Your task to perform on an android device: What is the news today? Image 0: 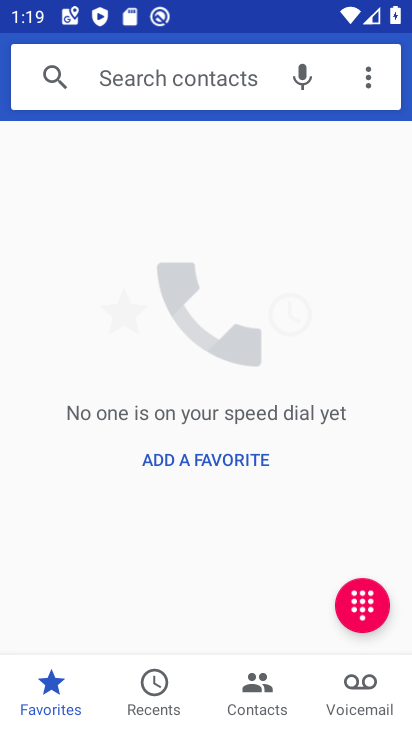
Step 0: press home button
Your task to perform on an android device: What is the news today? Image 1: 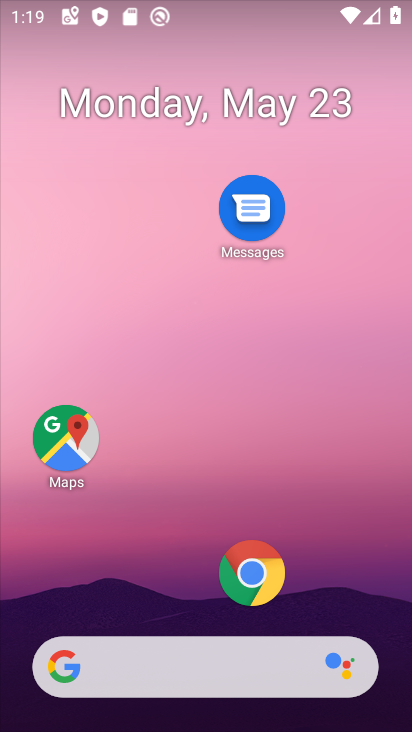
Step 1: drag from (148, 580) to (92, 113)
Your task to perform on an android device: What is the news today? Image 2: 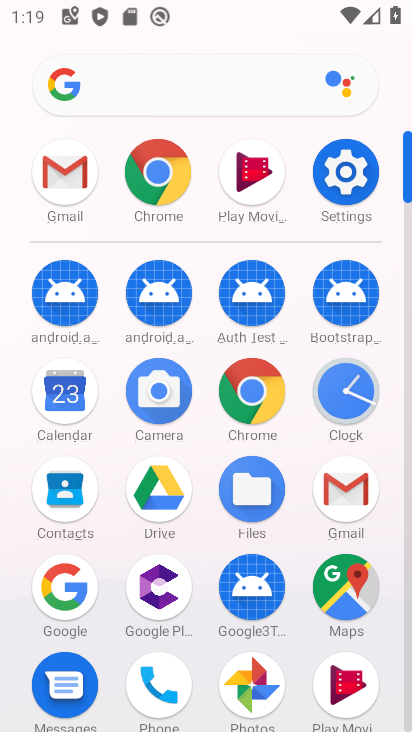
Step 2: click (172, 168)
Your task to perform on an android device: What is the news today? Image 3: 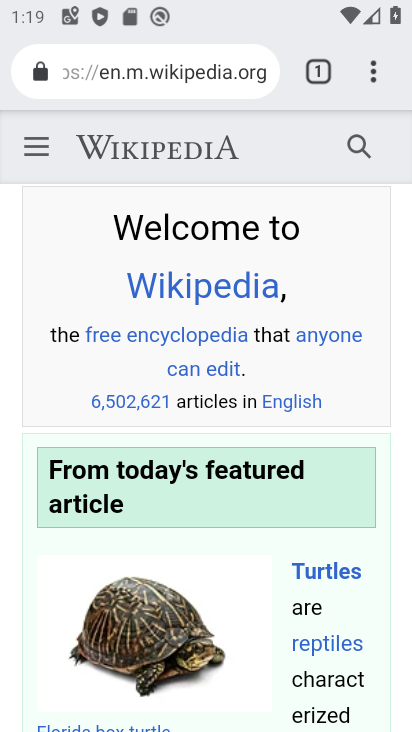
Step 3: click (245, 75)
Your task to perform on an android device: What is the news today? Image 4: 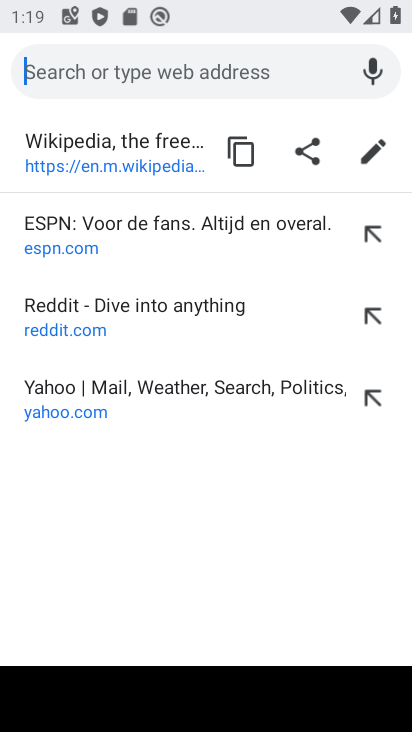
Step 4: type "what is the news today?"
Your task to perform on an android device: What is the news today? Image 5: 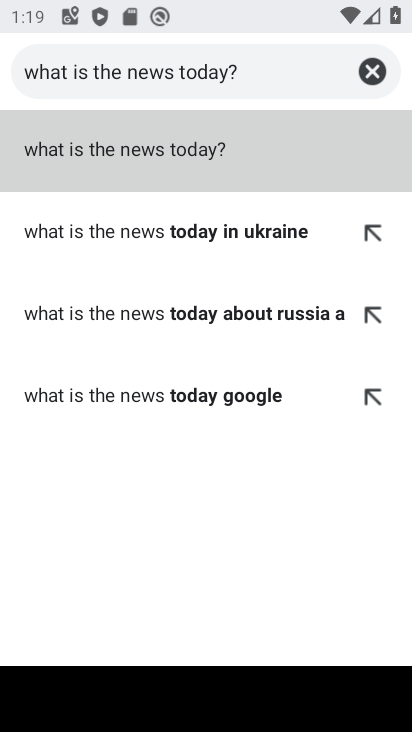
Step 5: click (218, 158)
Your task to perform on an android device: What is the news today? Image 6: 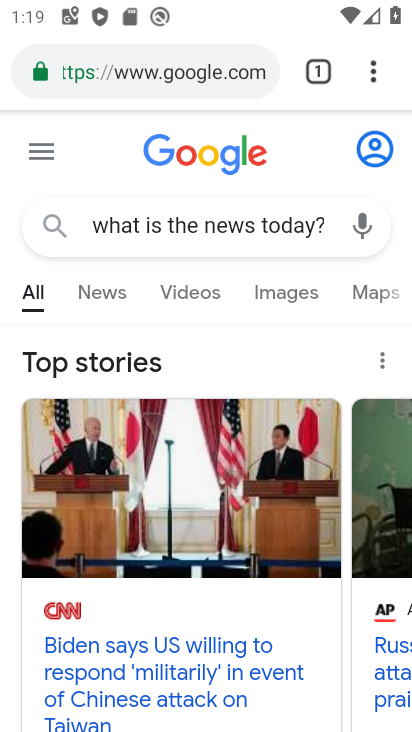
Step 6: task complete